Your task to perform on an android device: show emergency info Image 0: 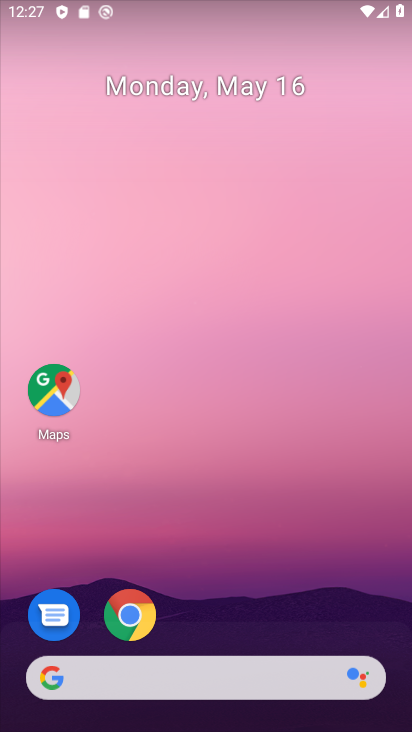
Step 0: drag from (260, 581) to (252, 53)
Your task to perform on an android device: show emergency info Image 1: 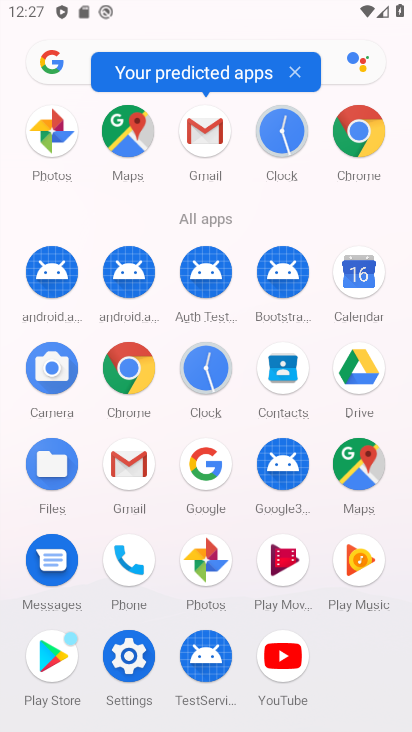
Step 1: click (129, 651)
Your task to perform on an android device: show emergency info Image 2: 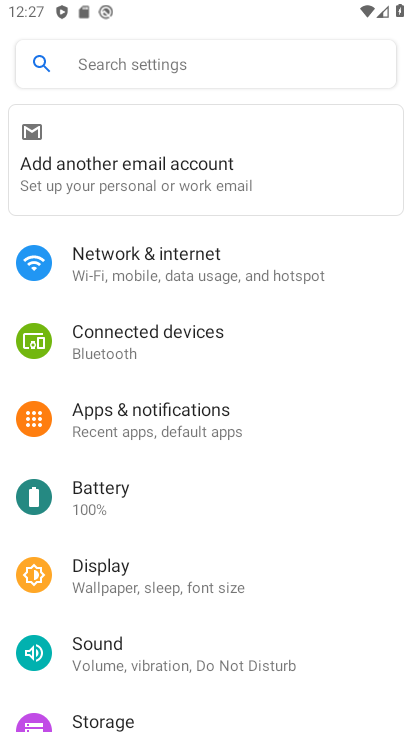
Step 2: drag from (245, 594) to (239, 29)
Your task to perform on an android device: show emergency info Image 3: 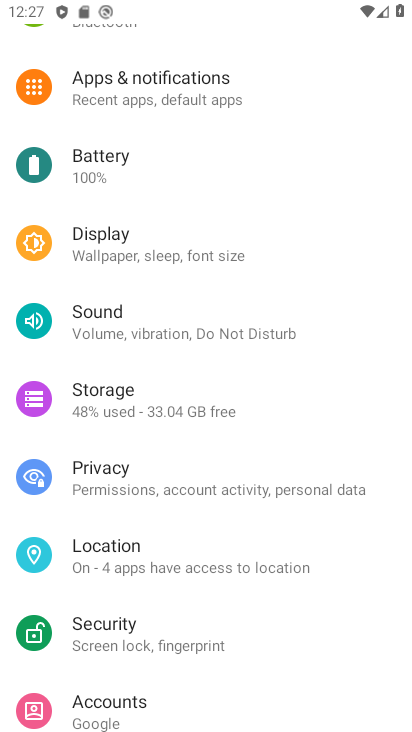
Step 3: drag from (193, 618) to (247, 192)
Your task to perform on an android device: show emergency info Image 4: 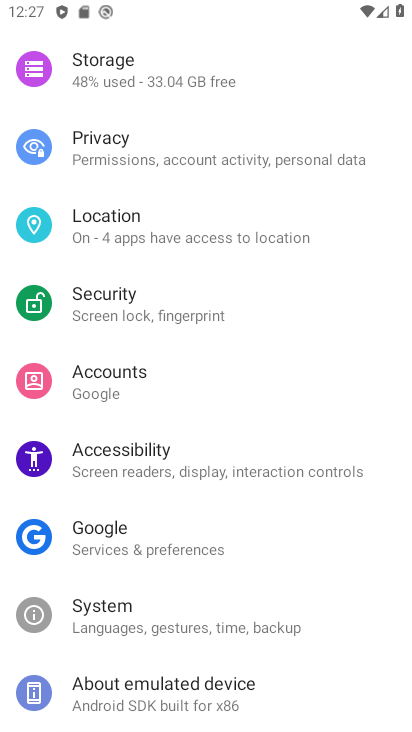
Step 4: drag from (203, 582) to (246, 208)
Your task to perform on an android device: show emergency info Image 5: 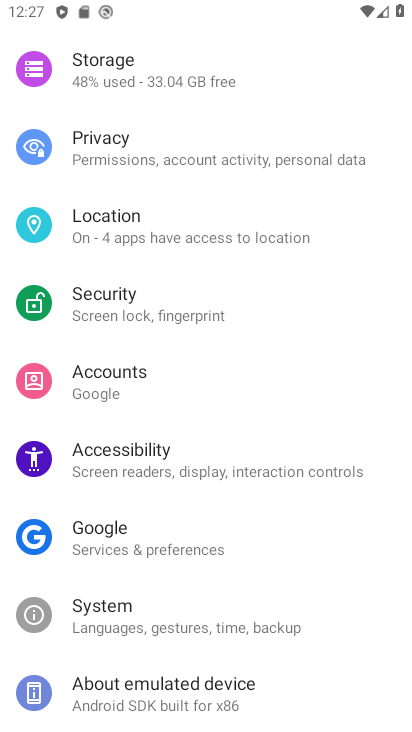
Step 5: click (152, 705)
Your task to perform on an android device: show emergency info Image 6: 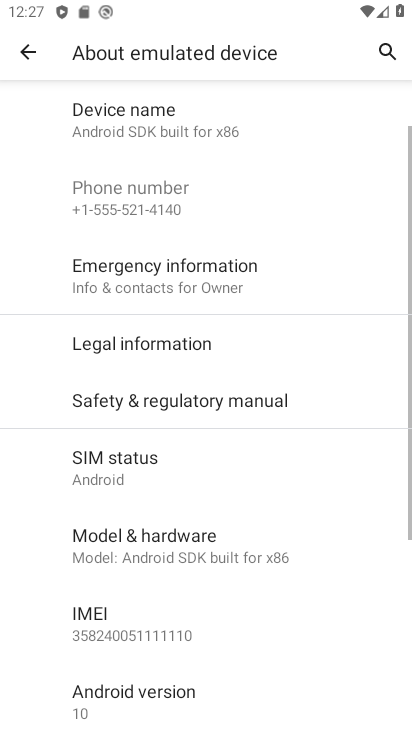
Step 6: drag from (198, 638) to (231, 490)
Your task to perform on an android device: show emergency info Image 7: 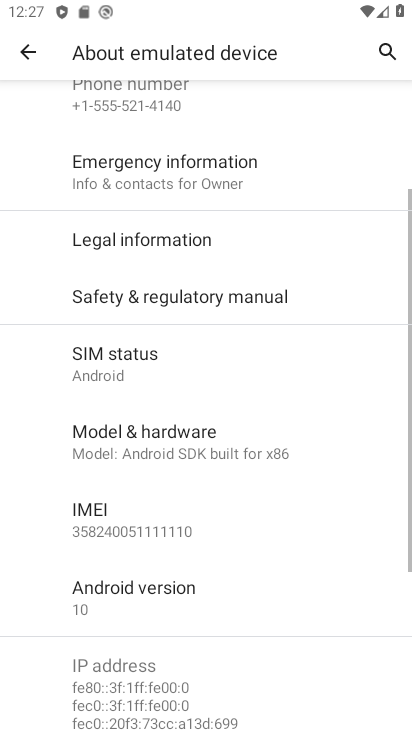
Step 7: click (172, 148)
Your task to perform on an android device: show emergency info Image 8: 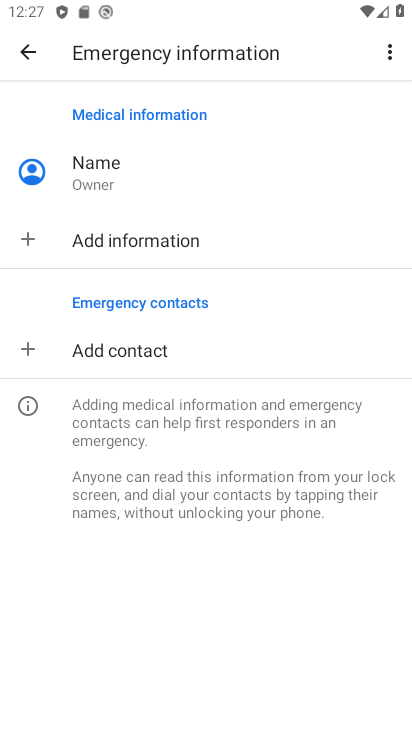
Step 8: task complete